Your task to perform on an android device: turn off translation in the chrome app Image 0: 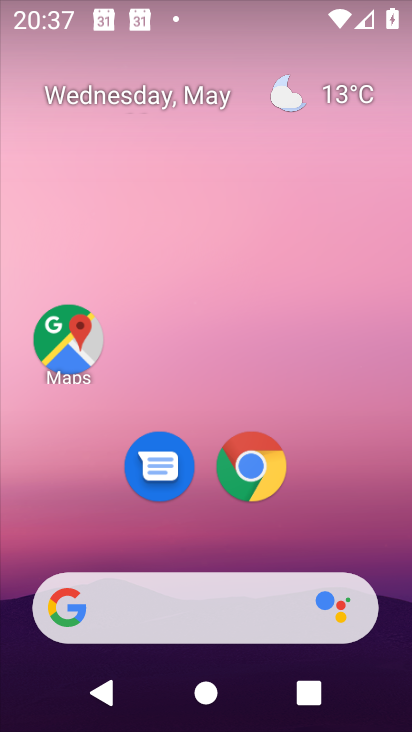
Step 0: drag from (207, 530) to (237, 8)
Your task to perform on an android device: turn off translation in the chrome app Image 1: 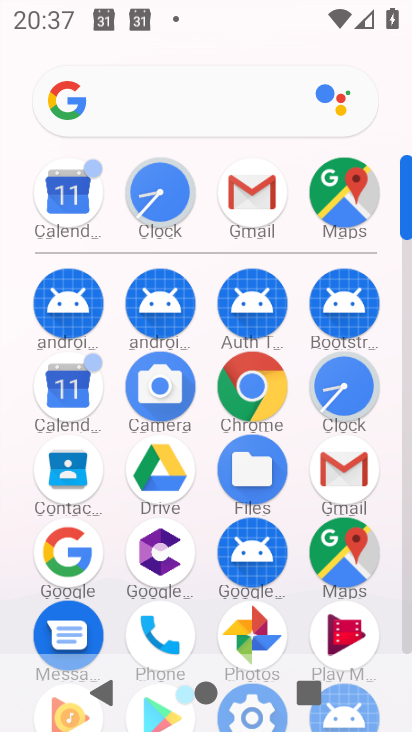
Step 1: click (251, 378)
Your task to perform on an android device: turn off translation in the chrome app Image 2: 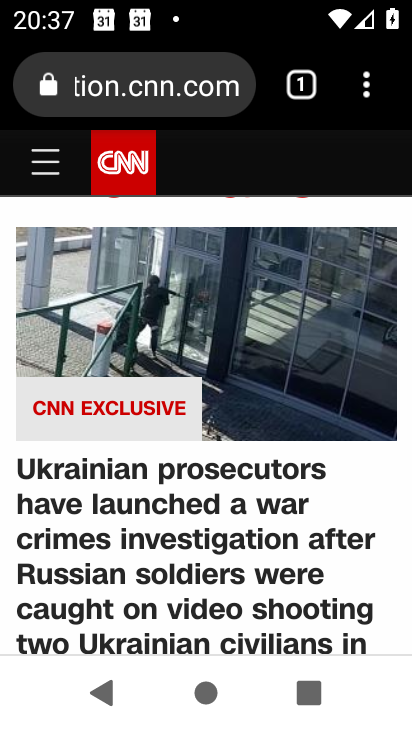
Step 2: click (362, 83)
Your task to perform on an android device: turn off translation in the chrome app Image 3: 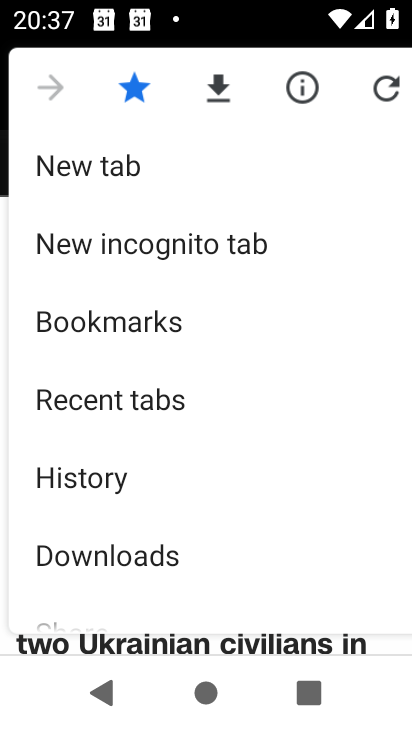
Step 3: drag from (214, 561) to (191, 142)
Your task to perform on an android device: turn off translation in the chrome app Image 4: 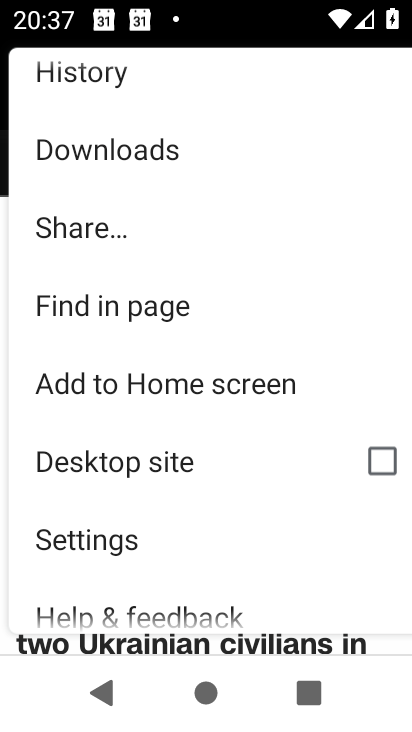
Step 4: click (159, 543)
Your task to perform on an android device: turn off translation in the chrome app Image 5: 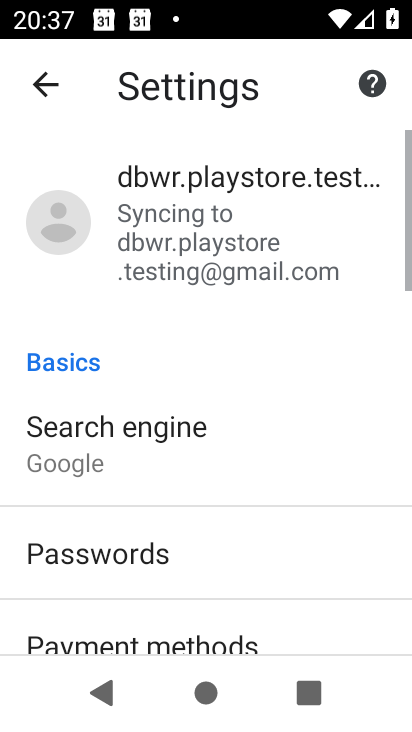
Step 5: drag from (208, 576) to (204, 468)
Your task to perform on an android device: turn off translation in the chrome app Image 6: 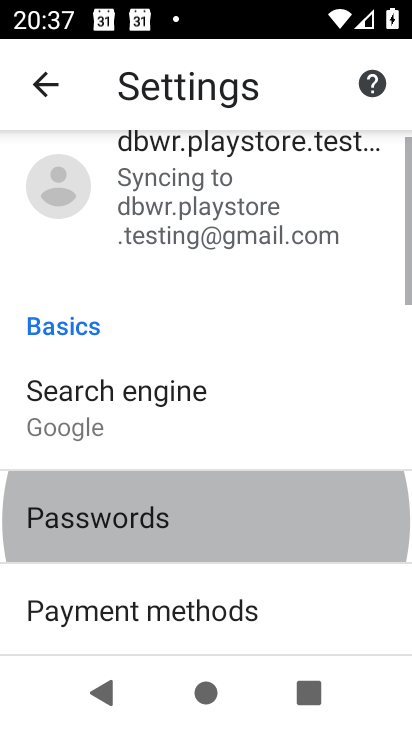
Step 6: drag from (204, 316) to (203, 112)
Your task to perform on an android device: turn off translation in the chrome app Image 7: 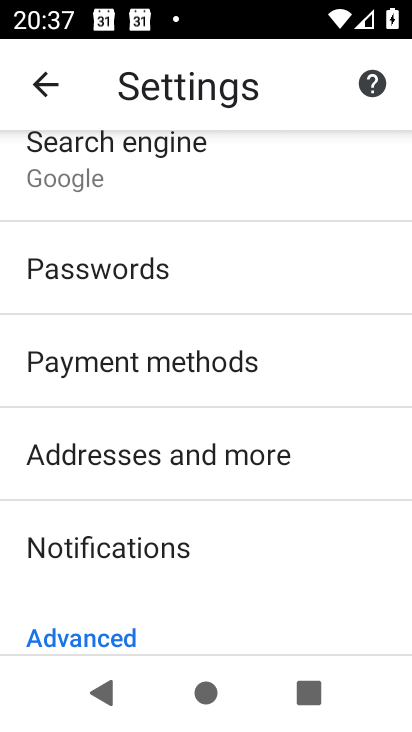
Step 7: drag from (197, 600) to (199, 317)
Your task to perform on an android device: turn off translation in the chrome app Image 8: 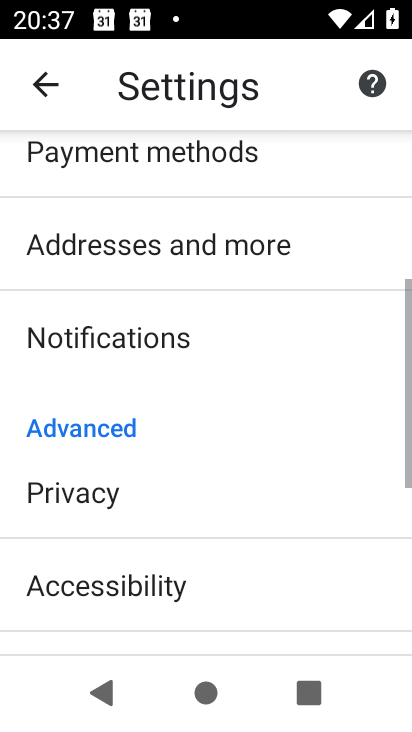
Step 8: drag from (196, 215) to (192, 171)
Your task to perform on an android device: turn off translation in the chrome app Image 9: 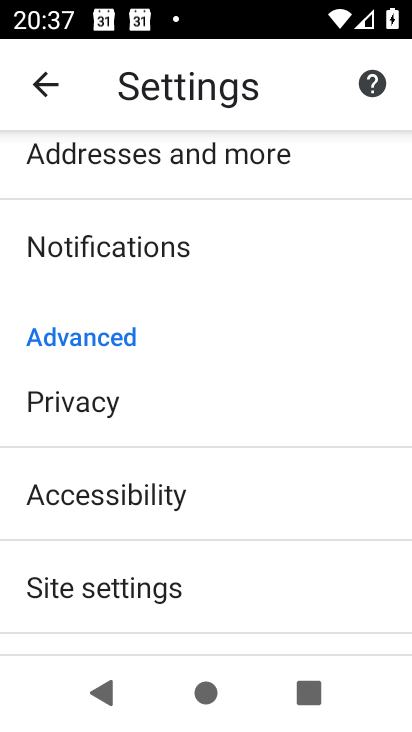
Step 9: drag from (203, 583) to (207, 162)
Your task to perform on an android device: turn off translation in the chrome app Image 10: 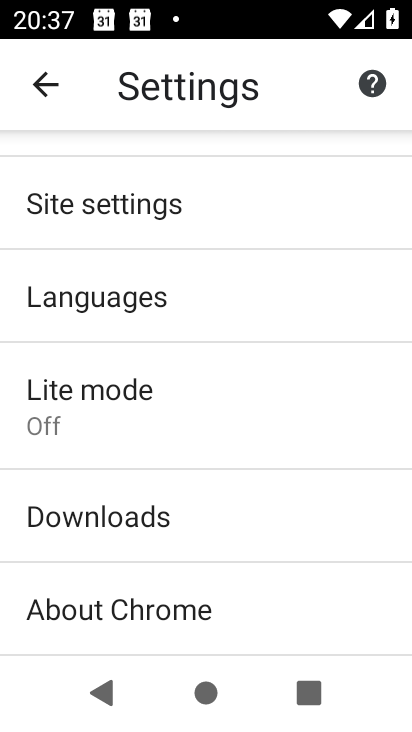
Step 10: click (178, 287)
Your task to perform on an android device: turn off translation in the chrome app Image 11: 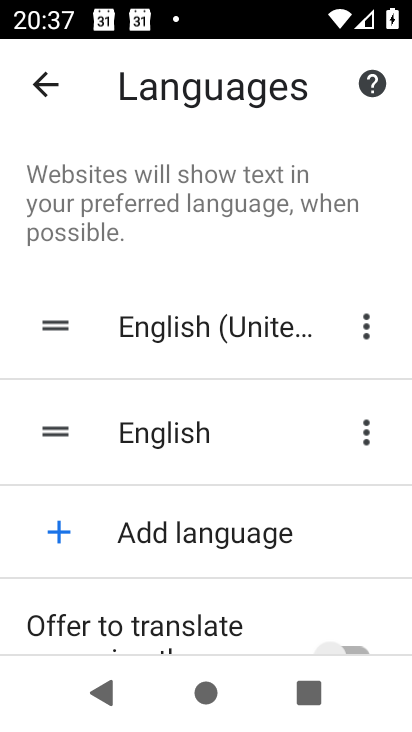
Step 11: task complete